Your task to perform on an android device: What's the price of the TCL TV? Image 0: 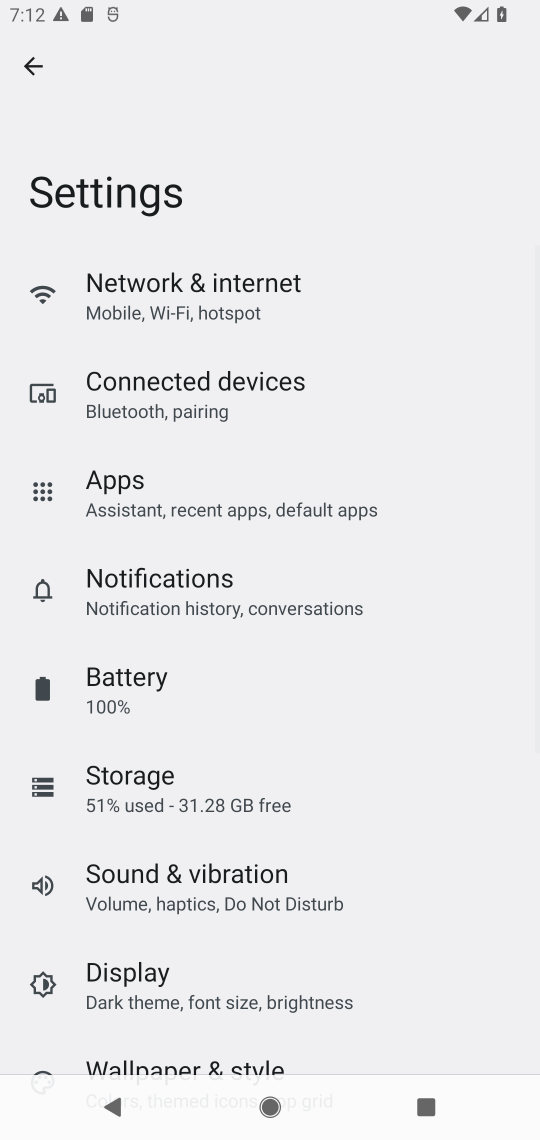
Step 0: press home button
Your task to perform on an android device: What's the price of the TCL TV? Image 1: 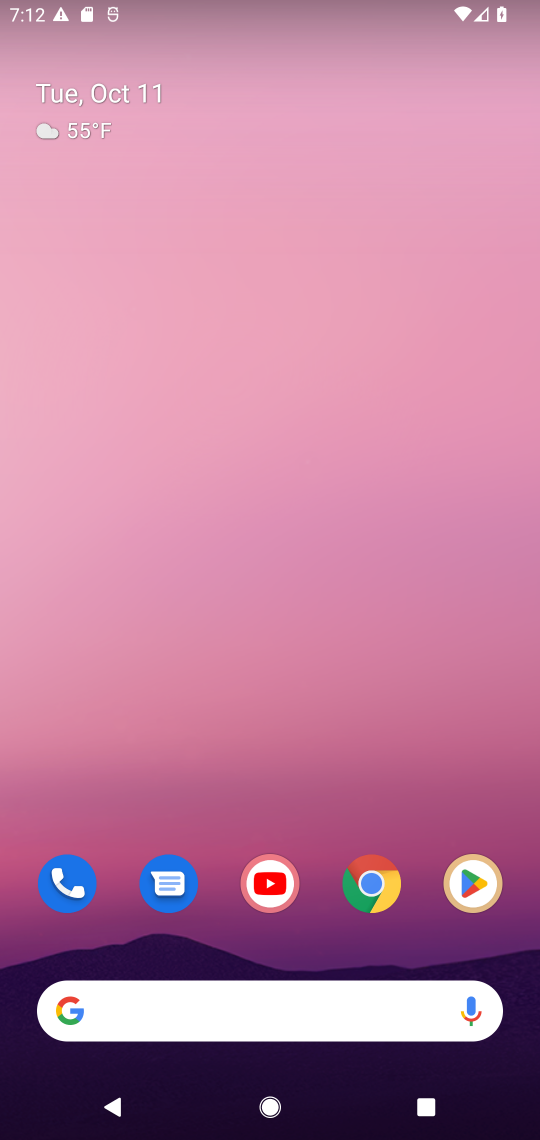
Step 1: drag from (314, 832) to (314, 186)
Your task to perform on an android device: What's the price of the TCL TV? Image 2: 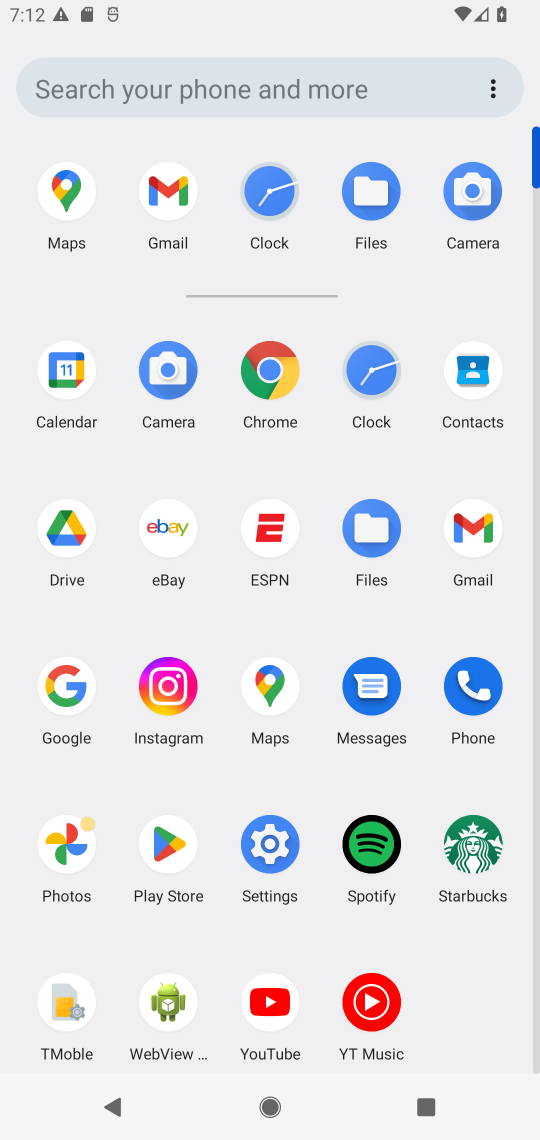
Step 2: click (255, 365)
Your task to perform on an android device: What's the price of the TCL TV? Image 3: 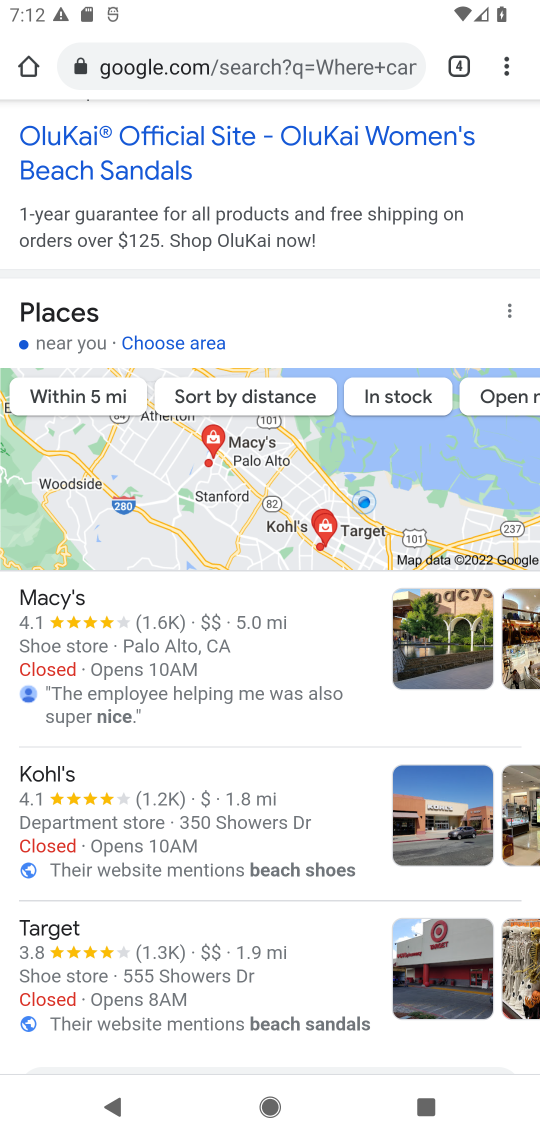
Step 3: click (299, 56)
Your task to perform on an android device: What's the price of the TCL TV? Image 4: 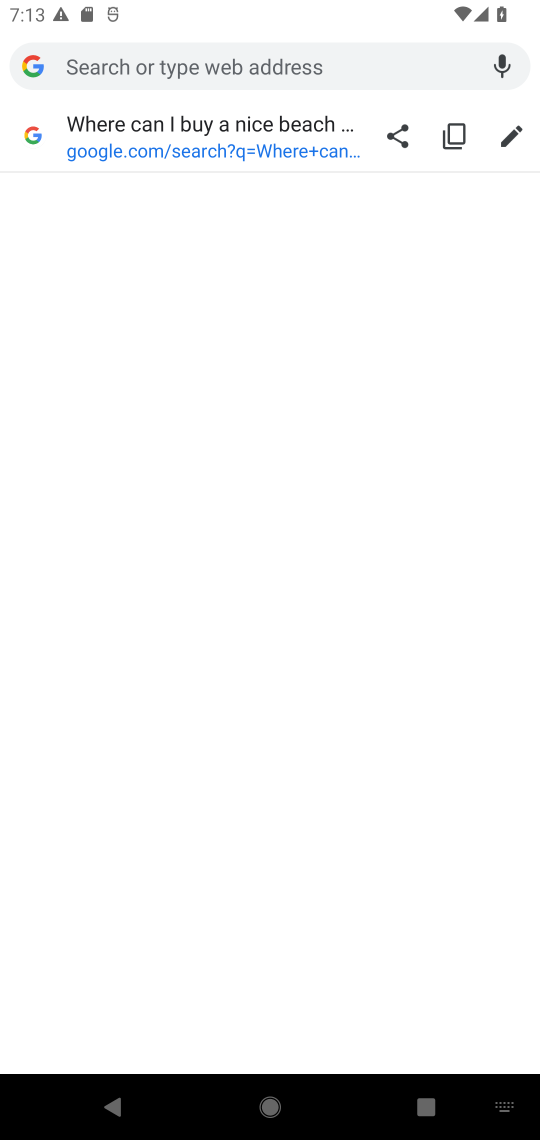
Step 4: type "What's the price of the TLC TV"
Your task to perform on an android device: What's the price of the TCL TV? Image 5: 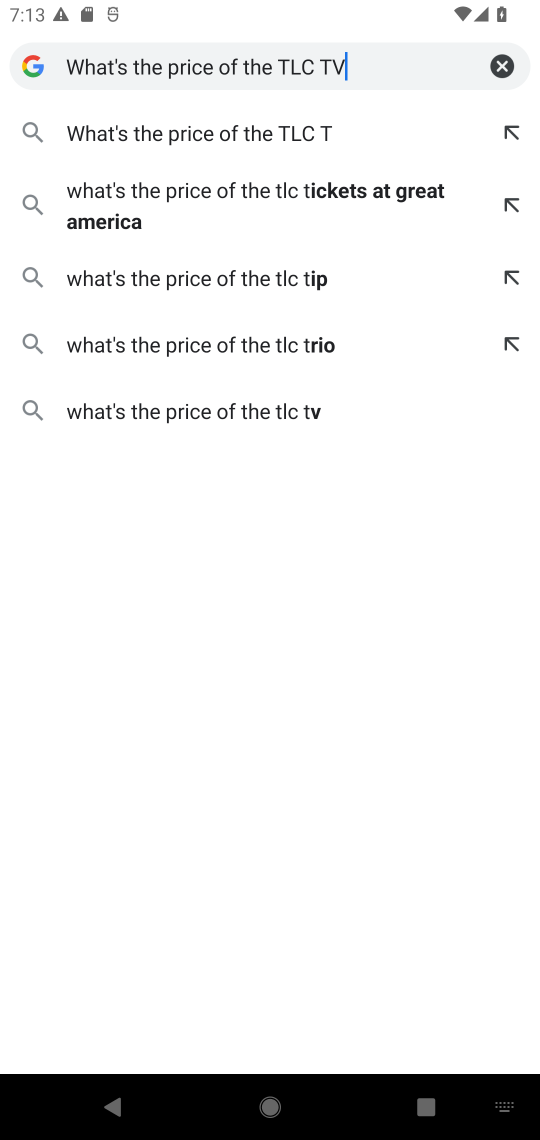
Step 5: press enter
Your task to perform on an android device: What's the price of the TCL TV? Image 6: 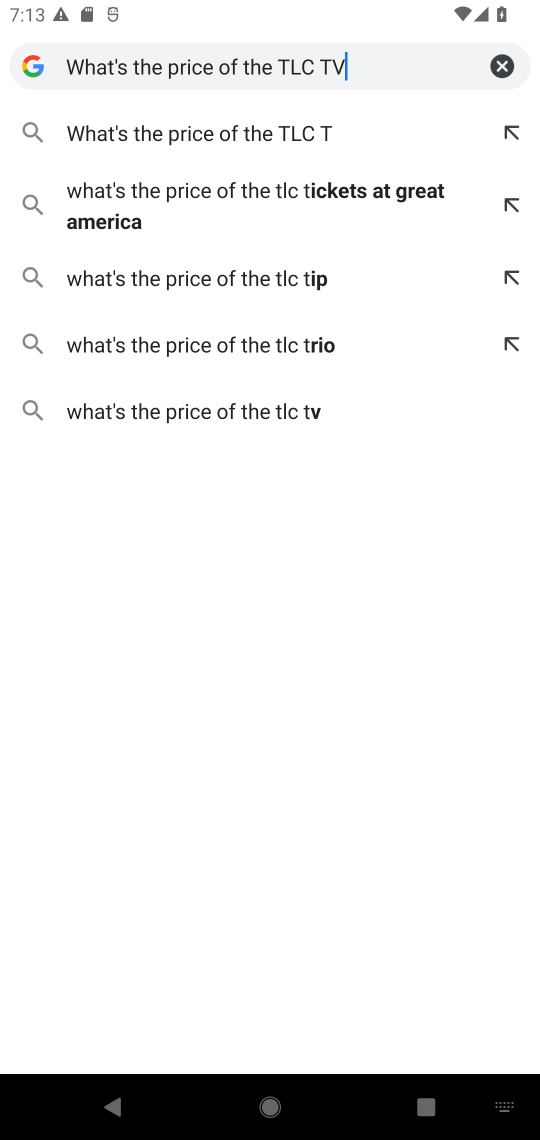
Step 6: type "?"
Your task to perform on an android device: What's the price of the TCL TV? Image 7: 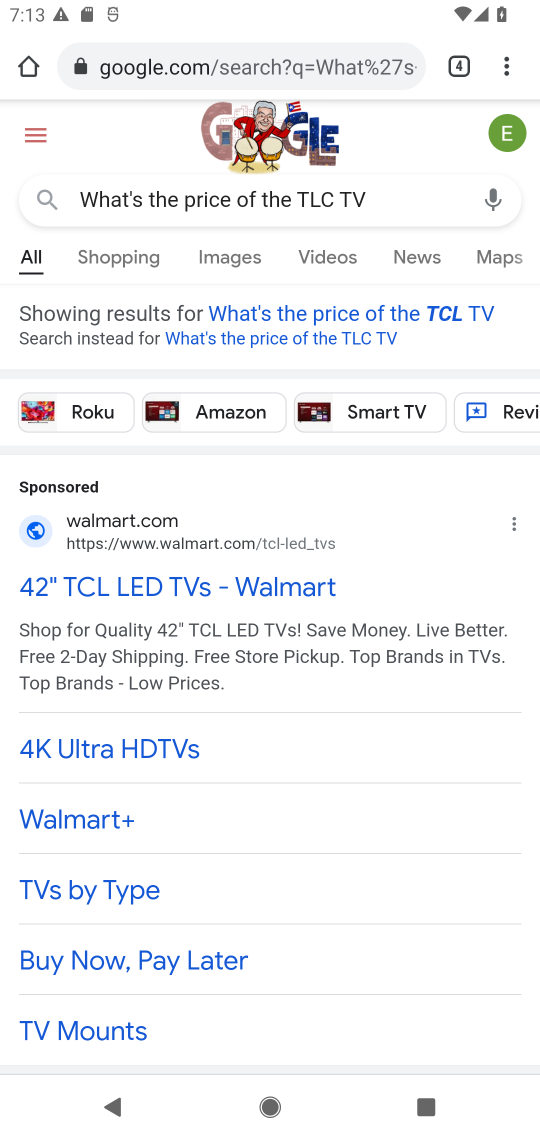
Step 7: task complete